Your task to perform on an android device: see tabs open on other devices in the chrome app Image 0: 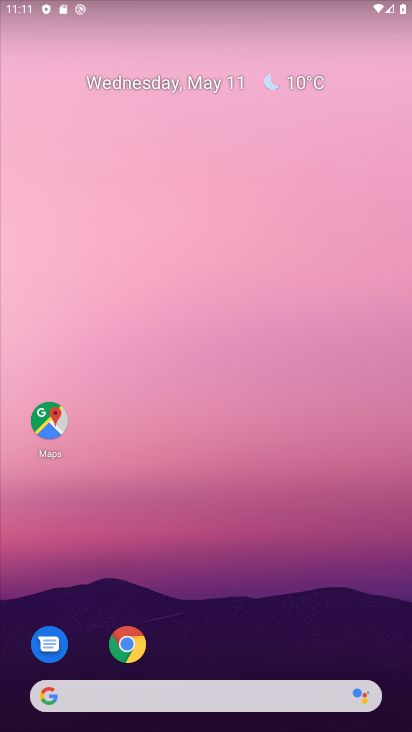
Step 0: drag from (223, 577) to (327, 90)
Your task to perform on an android device: see tabs open on other devices in the chrome app Image 1: 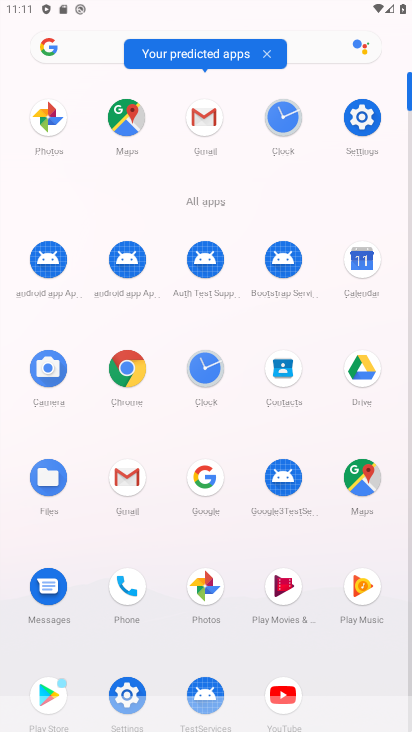
Step 1: click (131, 371)
Your task to perform on an android device: see tabs open on other devices in the chrome app Image 2: 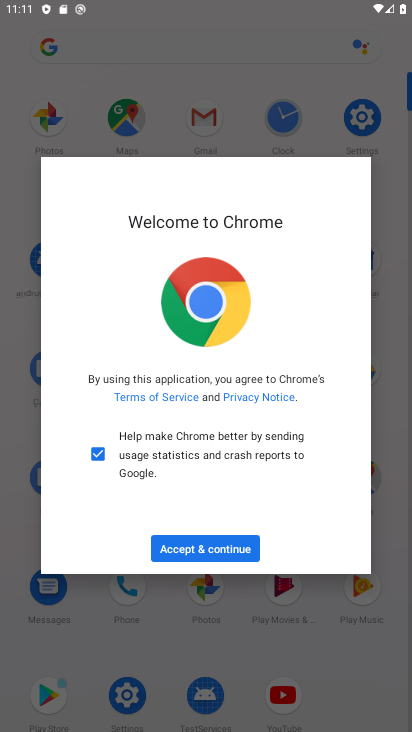
Step 2: click (216, 540)
Your task to perform on an android device: see tabs open on other devices in the chrome app Image 3: 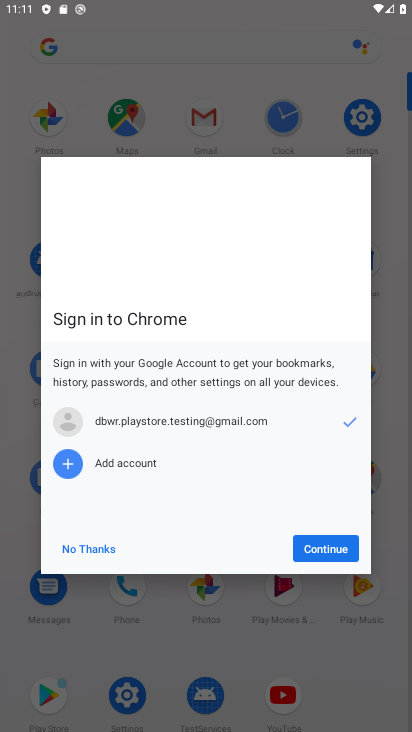
Step 3: click (216, 540)
Your task to perform on an android device: see tabs open on other devices in the chrome app Image 4: 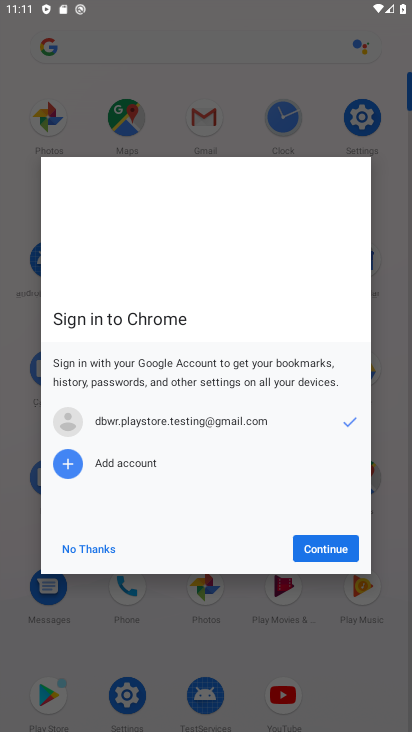
Step 4: click (317, 538)
Your task to perform on an android device: see tabs open on other devices in the chrome app Image 5: 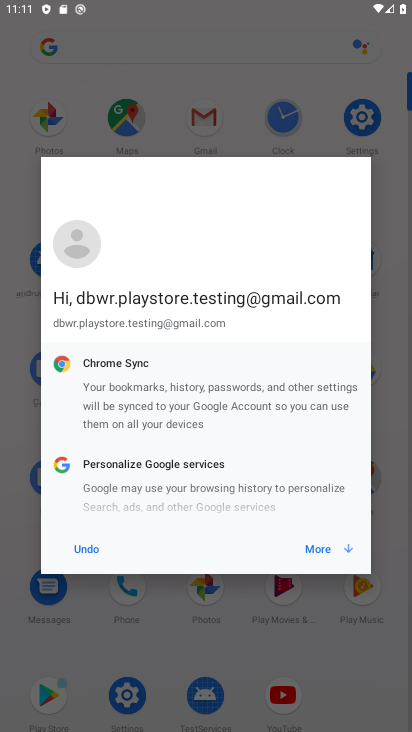
Step 5: click (317, 538)
Your task to perform on an android device: see tabs open on other devices in the chrome app Image 6: 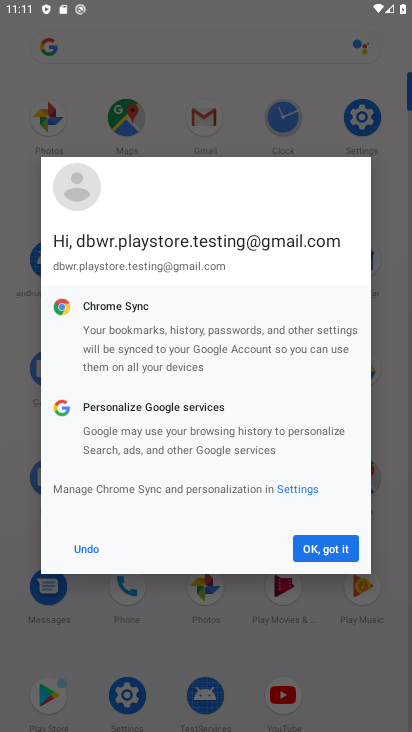
Step 6: click (317, 538)
Your task to perform on an android device: see tabs open on other devices in the chrome app Image 7: 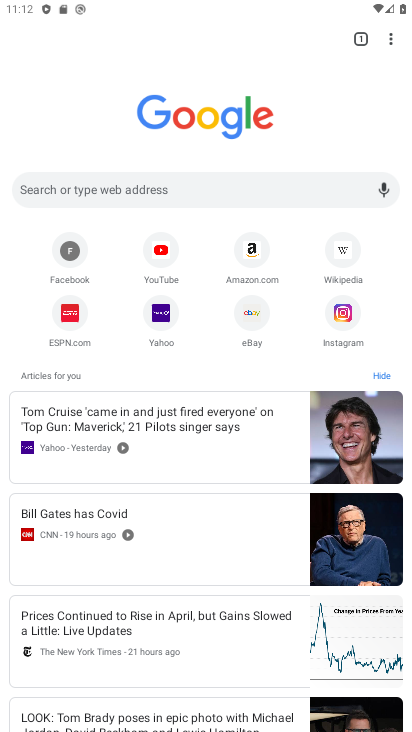
Step 7: drag from (396, 35) to (246, 328)
Your task to perform on an android device: see tabs open on other devices in the chrome app Image 8: 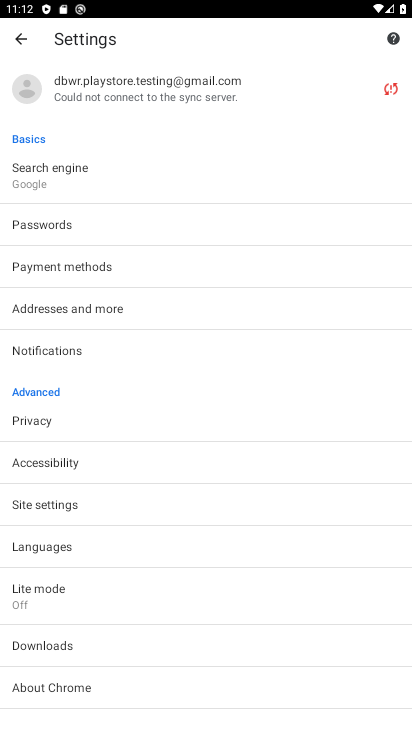
Step 8: click (20, 38)
Your task to perform on an android device: see tabs open on other devices in the chrome app Image 9: 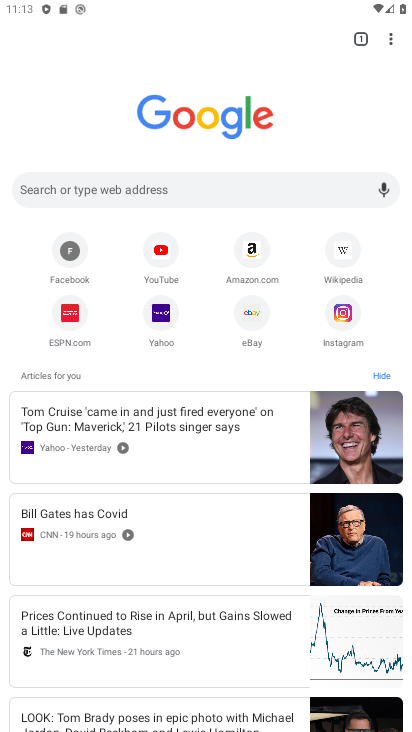
Step 9: task complete